Your task to perform on an android device: Open Chrome and go to settings Image 0: 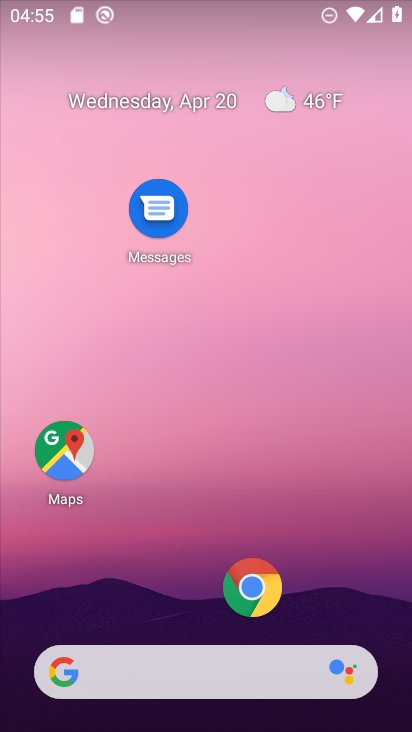
Step 0: click (236, 596)
Your task to perform on an android device: Open Chrome and go to settings Image 1: 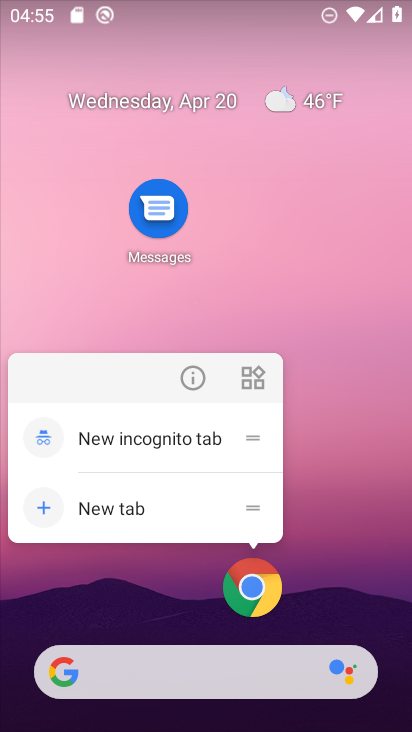
Step 1: click (249, 589)
Your task to perform on an android device: Open Chrome and go to settings Image 2: 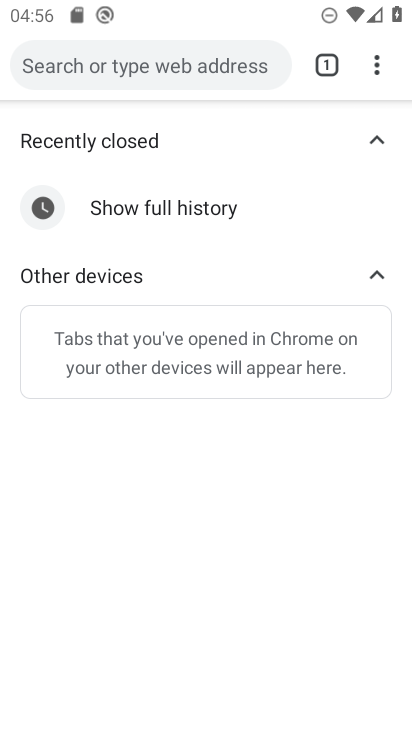
Step 2: task complete